Your task to perform on an android device: turn notification dots on Image 0: 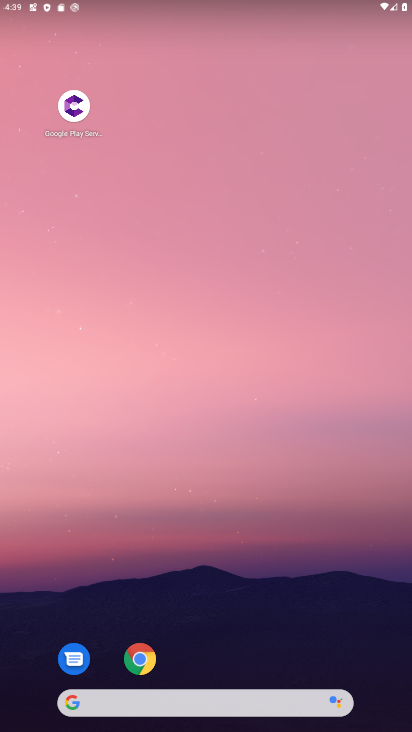
Step 0: drag from (162, 599) to (226, 3)
Your task to perform on an android device: turn notification dots on Image 1: 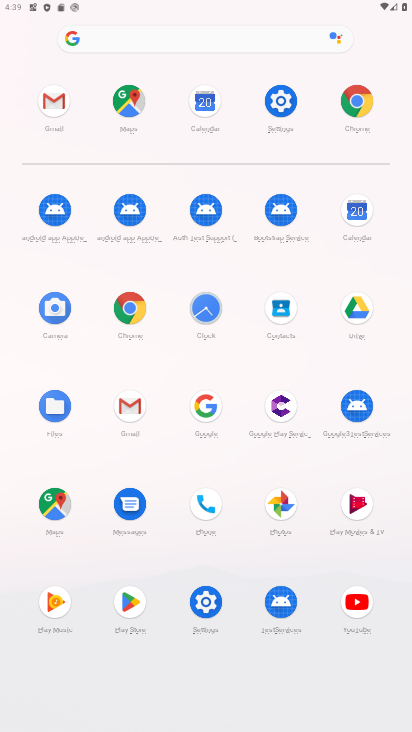
Step 1: click (288, 102)
Your task to perform on an android device: turn notification dots on Image 2: 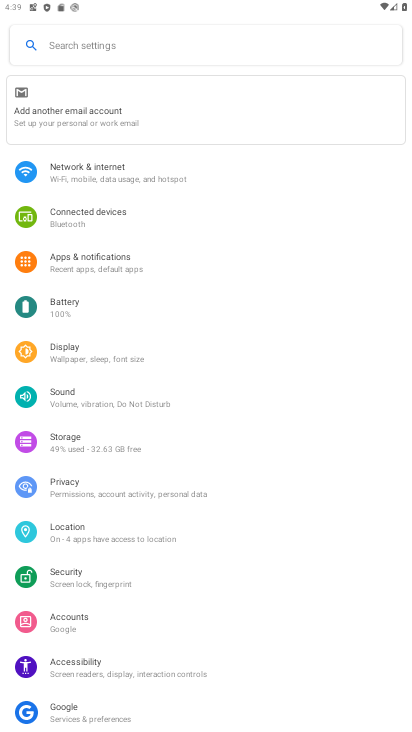
Step 2: click (97, 261)
Your task to perform on an android device: turn notification dots on Image 3: 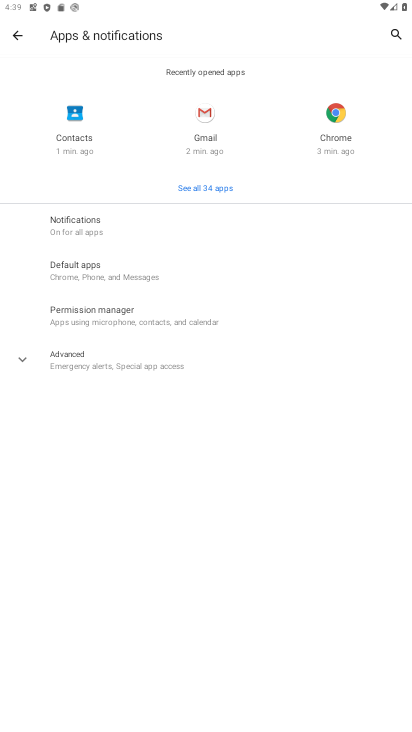
Step 3: click (112, 220)
Your task to perform on an android device: turn notification dots on Image 4: 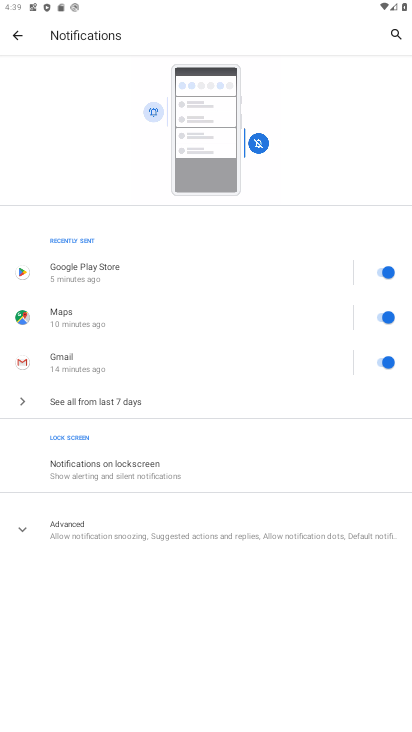
Step 4: click (153, 463)
Your task to perform on an android device: turn notification dots on Image 5: 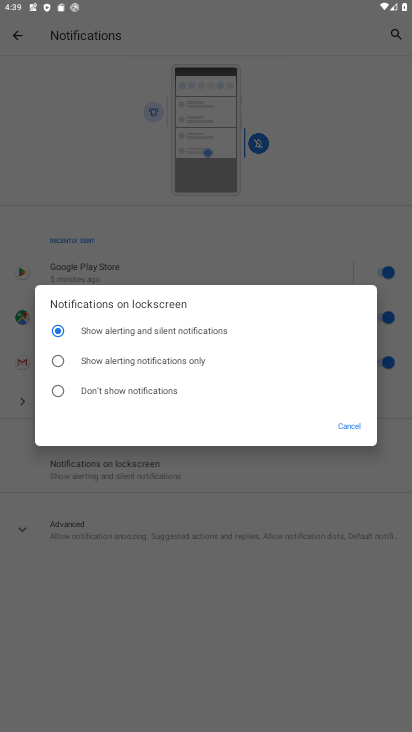
Step 5: click (153, 488)
Your task to perform on an android device: turn notification dots on Image 6: 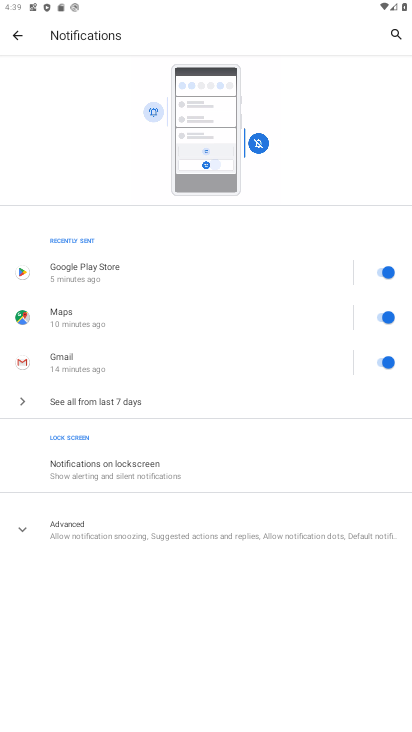
Step 6: click (102, 533)
Your task to perform on an android device: turn notification dots on Image 7: 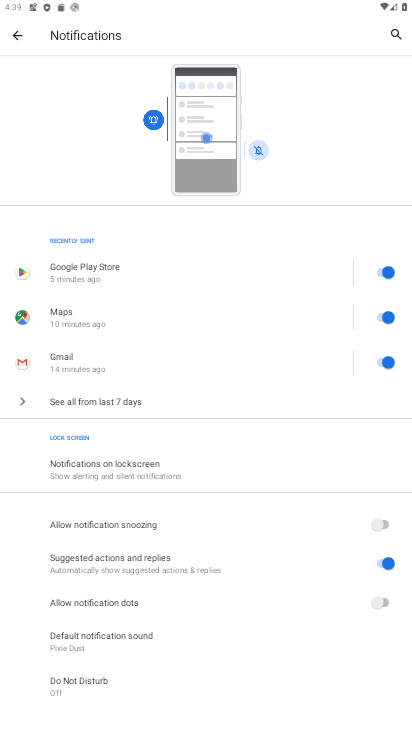
Step 7: click (382, 598)
Your task to perform on an android device: turn notification dots on Image 8: 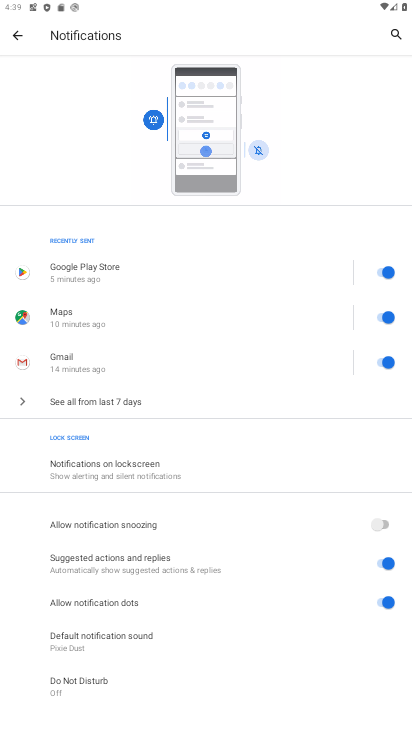
Step 8: task complete